Your task to perform on an android device: turn on the 24-hour format for clock Image 0: 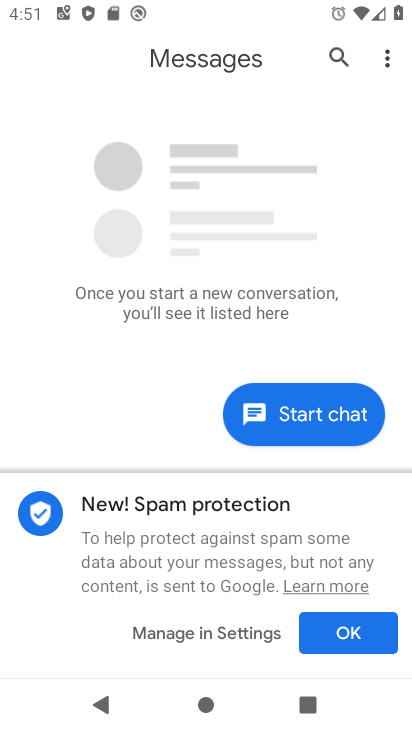
Step 0: press home button
Your task to perform on an android device: turn on the 24-hour format for clock Image 1: 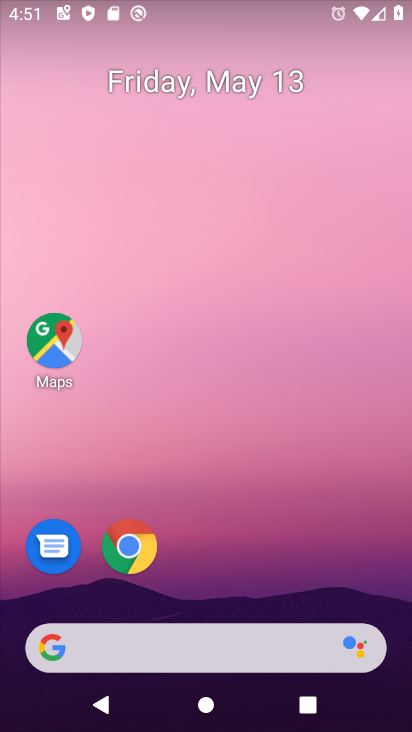
Step 1: drag from (221, 586) to (282, 1)
Your task to perform on an android device: turn on the 24-hour format for clock Image 2: 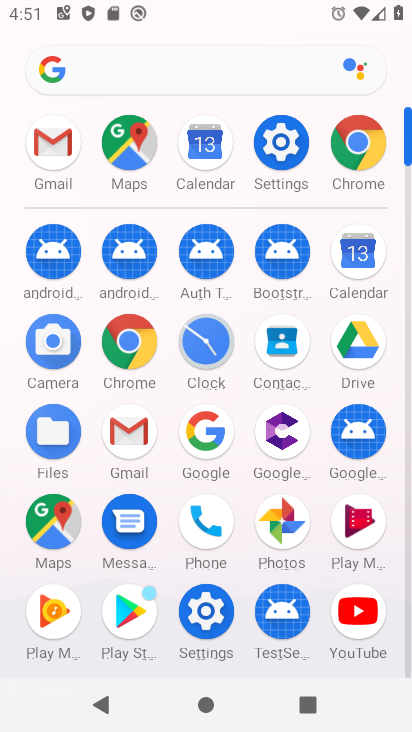
Step 2: click (197, 624)
Your task to perform on an android device: turn on the 24-hour format for clock Image 3: 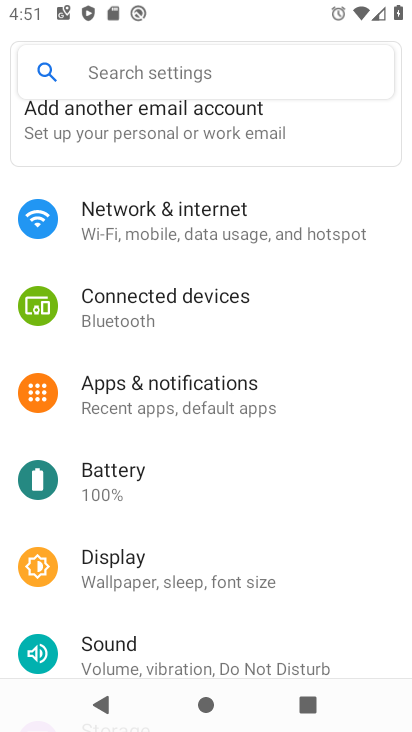
Step 3: drag from (166, 627) to (216, 260)
Your task to perform on an android device: turn on the 24-hour format for clock Image 4: 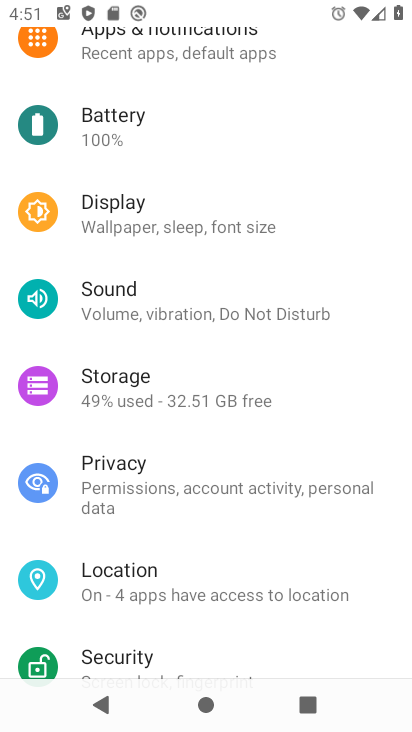
Step 4: drag from (155, 606) to (215, 293)
Your task to perform on an android device: turn on the 24-hour format for clock Image 5: 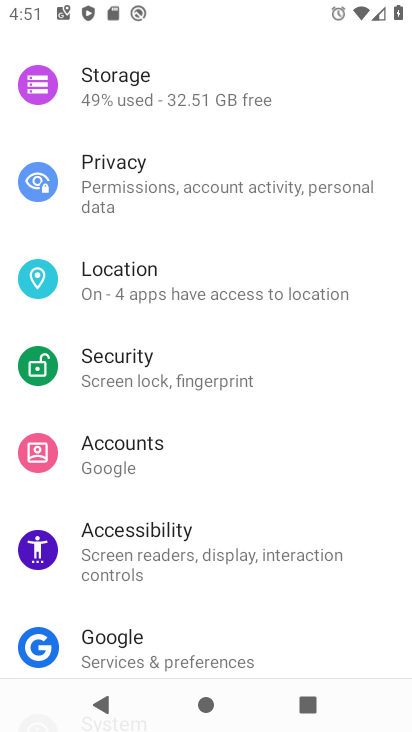
Step 5: drag from (169, 578) to (219, 246)
Your task to perform on an android device: turn on the 24-hour format for clock Image 6: 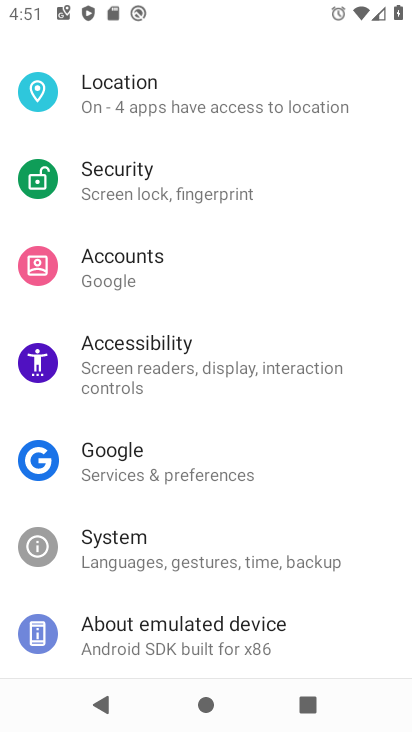
Step 6: click (169, 565)
Your task to perform on an android device: turn on the 24-hour format for clock Image 7: 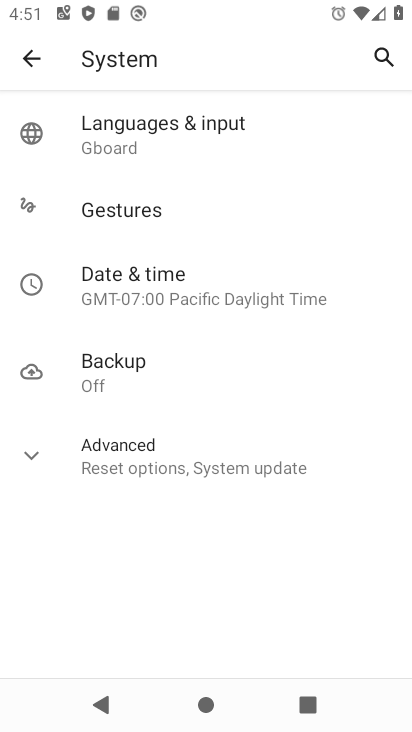
Step 7: click (147, 299)
Your task to perform on an android device: turn on the 24-hour format for clock Image 8: 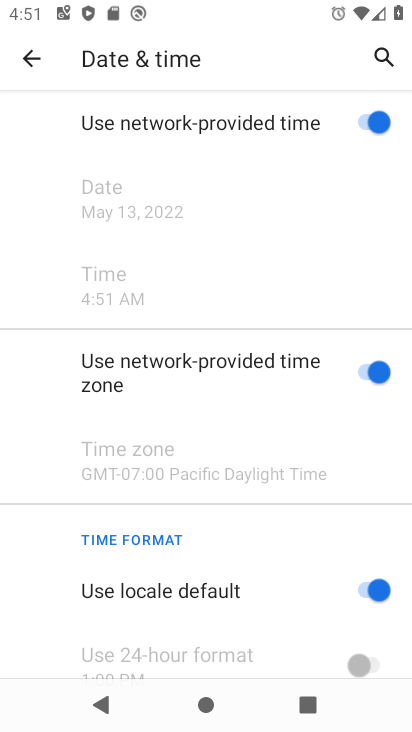
Step 8: drag from (267, 501) to (267, 334)
Your task to perform on an android device: turn on the 24-hour format for clock Image 9: 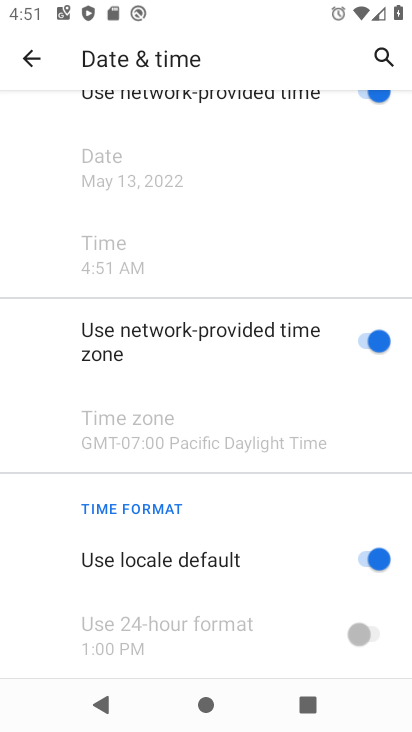
Step 9: click (348, 553)
Your task to perform on an android device: turn on the 24-hour format for clock Image 10: 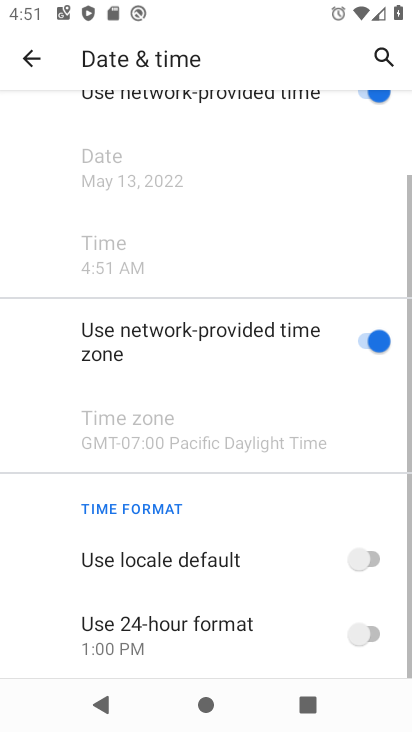
Step 10: click (382, 631)
Your task to perform on an android device: turn on the 24-hour format for clock Image 11: 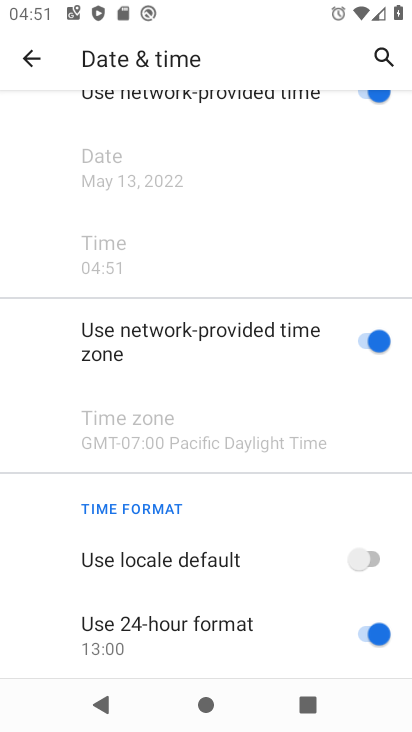
Step 11: task complete